Your task to perform on an android device: Go to Yahoo.com Image 0: 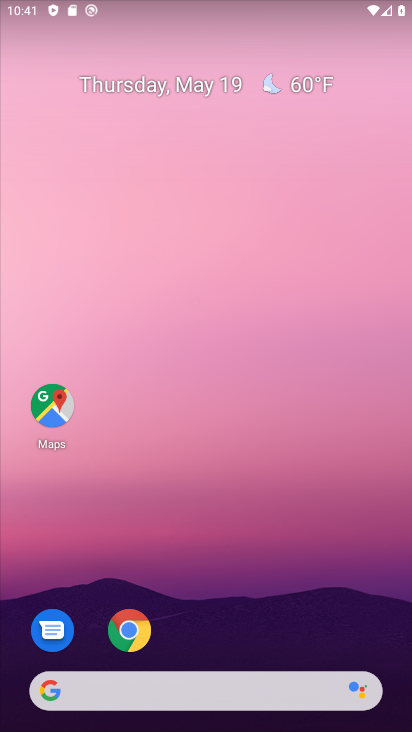
Step 0: drag from (258, 642) to (237, 135)
Your task to perform on an android device: Go to Yahoo.com Image 1: 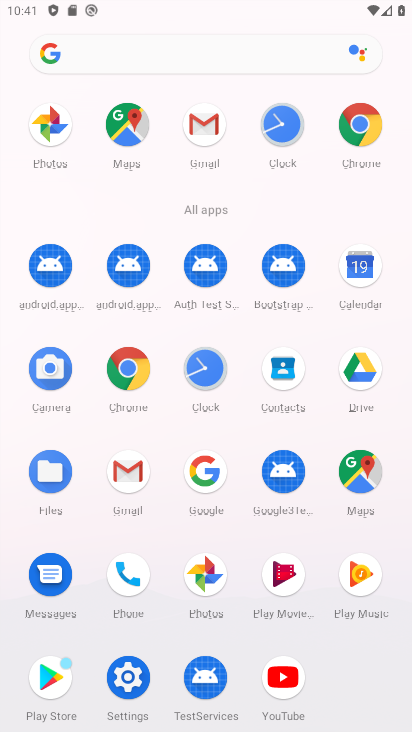
Step 1: click (365, 138)
Your task to perform on an android device: Go to Yahoo.com Image 2: 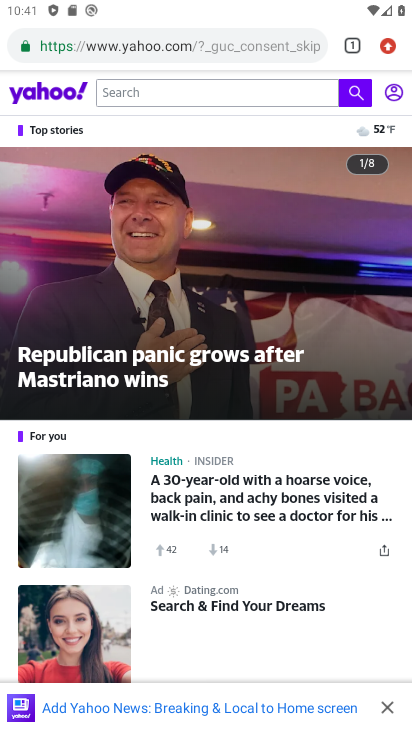
Step 2: task complete